Your task to perform on an android device: turn notification dots on Image 0: 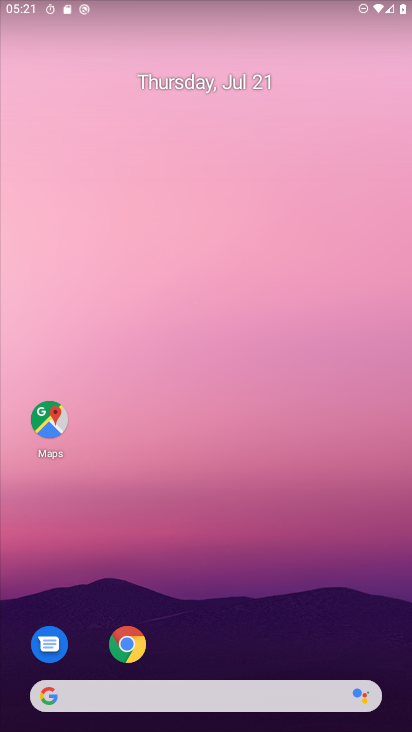
Step 0: drag from (175, 658) to (310, 6)
Your task to perform on an android device: turn notification dots on Image 1: 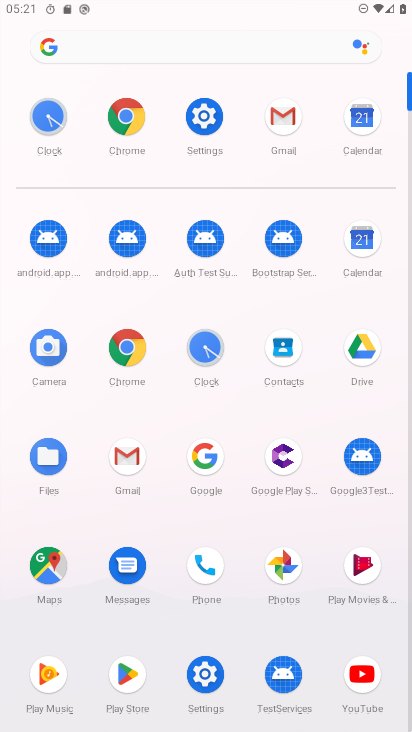
Step 1: click (202, 111)
Your task to perform on an android device: turn notification dots on Image 2: 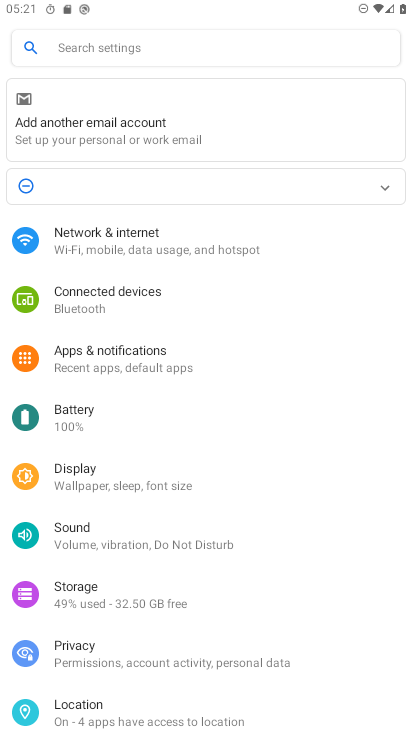
Step 2: click (100, 354)
Your task to perform on an android device: turn notification dots on Image 3: 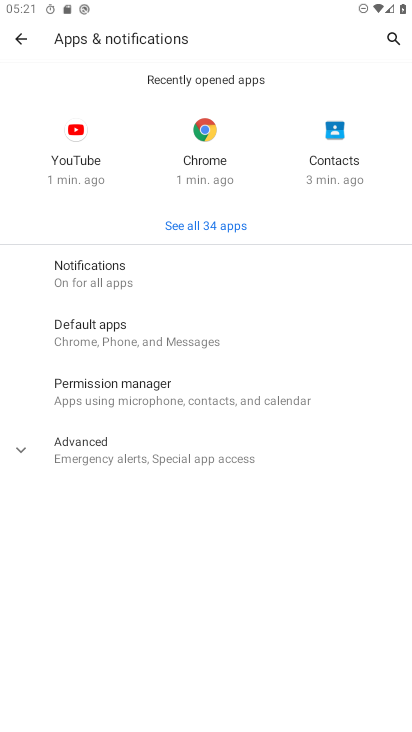
Step 3: click (77, 429)
Your task to perform on an android device: turn notification dots on Image 4: 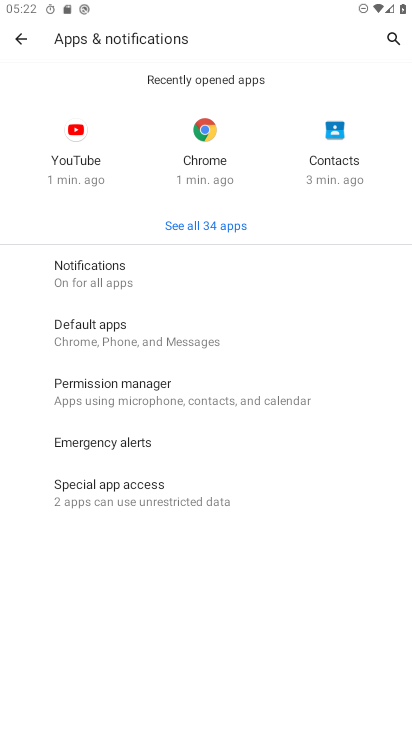
Step 4: click (103, 273)
Your task to perform on an android device: turn notification dots on Image 5: 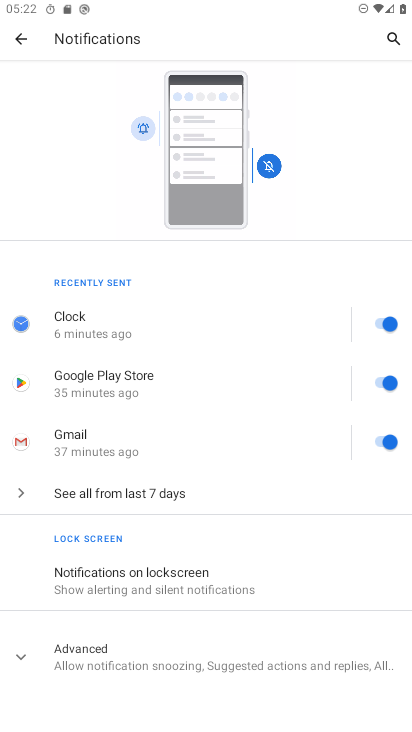
Step 5: click (117, 663)
Your task to perform on an android device: turn notification dots on Image 6: 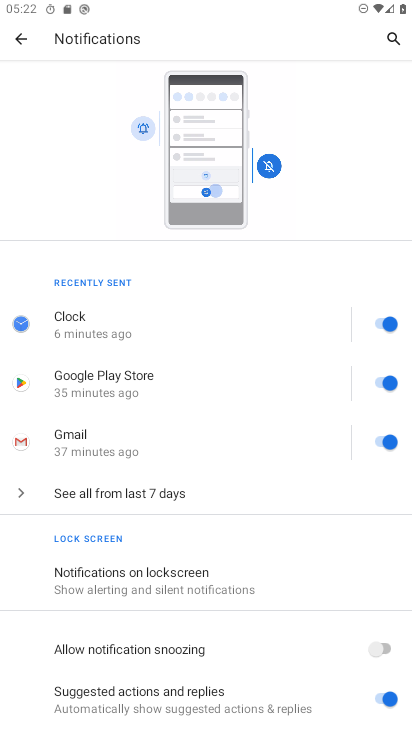
Step 6: task complete